Your task to perform on an android device: turn on bluetooth scan Image 0: 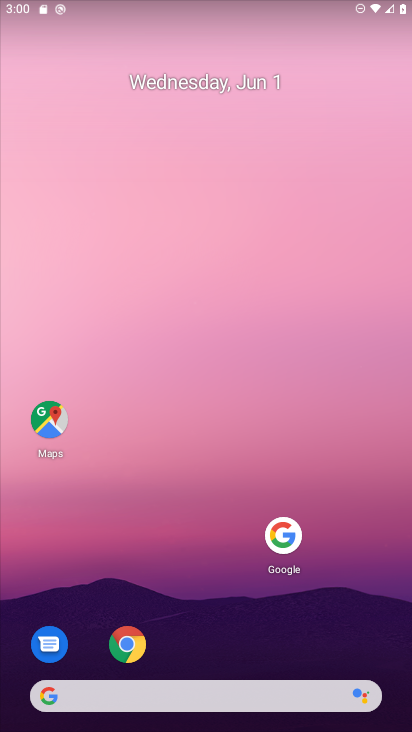
Step 0: drag from (187, 696) to (308, 344)
Your task to perform on an android device: turn on bluetooth scan Image 1: 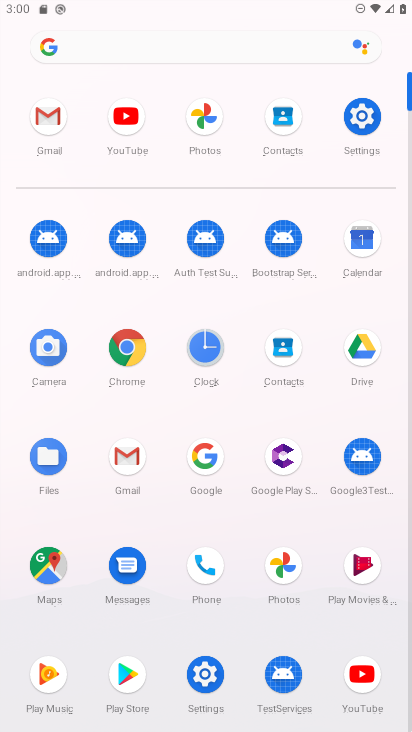
Step 1: click (366, 110)
Your task to perform on an android device: turn on bluetooth scan Image 2: 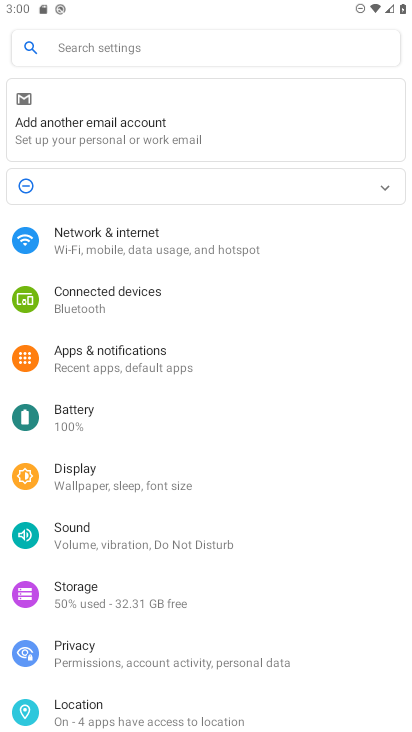
Step 2: click (74, 704)
Your task to perform on an android device: turn on bluetooth scan Image 3: 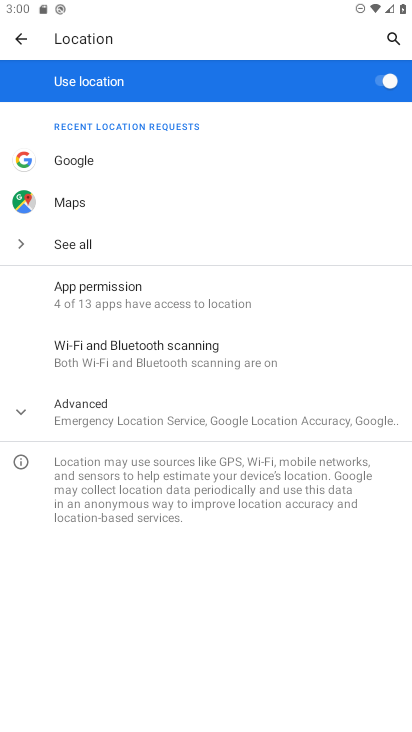
Step 3: click (132, 348)
Your task to perform on an android device: turn on bluetooth scan Image 4: 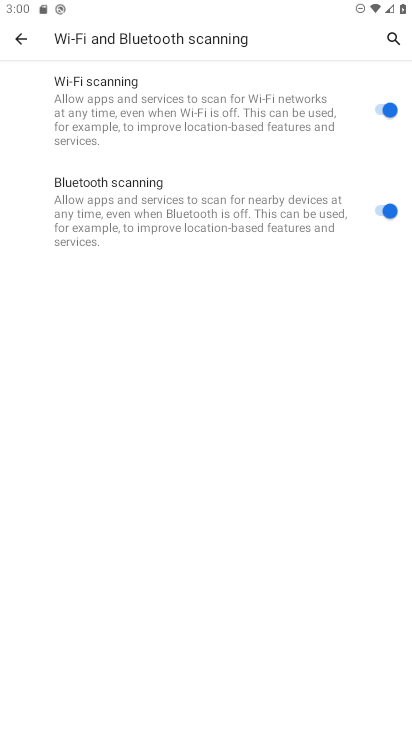
Step 4: task complete